Your task to perform on an android device: Search for sushi restaurants on Maps Image 0: 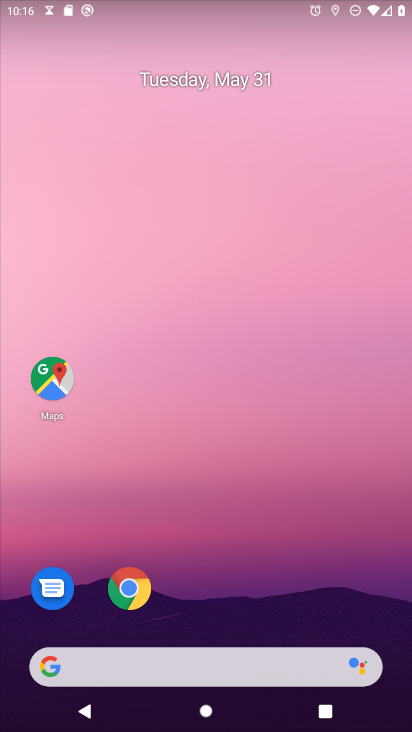
Step 0: click (50, 378)
Your task to perform on an android device: Search for sushi restaurants on Maps Image 1: 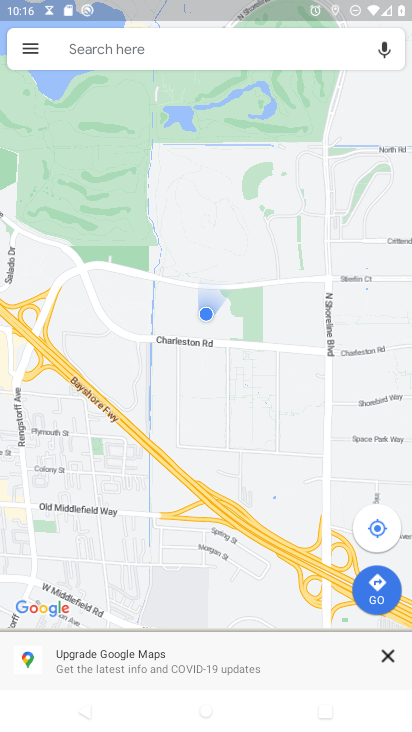
Step 1: click (197, 48)
Your task to perform on an android device: Search for sushi restaurants on Maps Image 2: 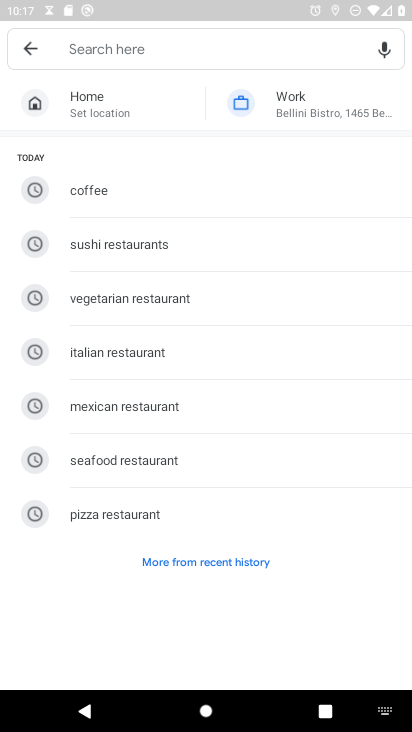
Step 2: type "sushi restaurants"
Your task to perform on an android device: Search for sushi restaurants on Maps Image 3: 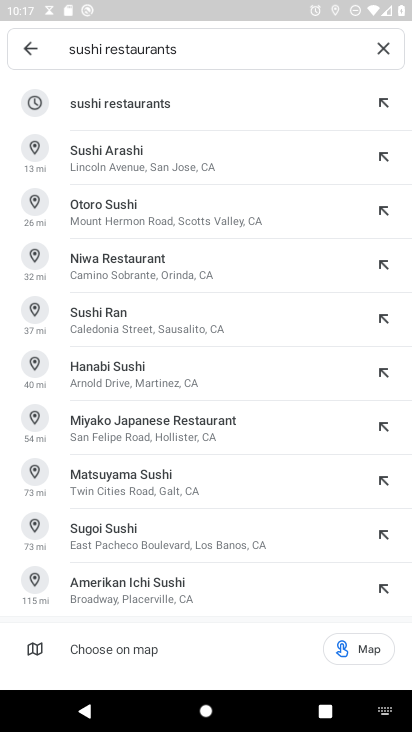
Step 3: click (141, 109)
Your task to perform on an android device: Search for sushi restaurants on Maps Image 4: 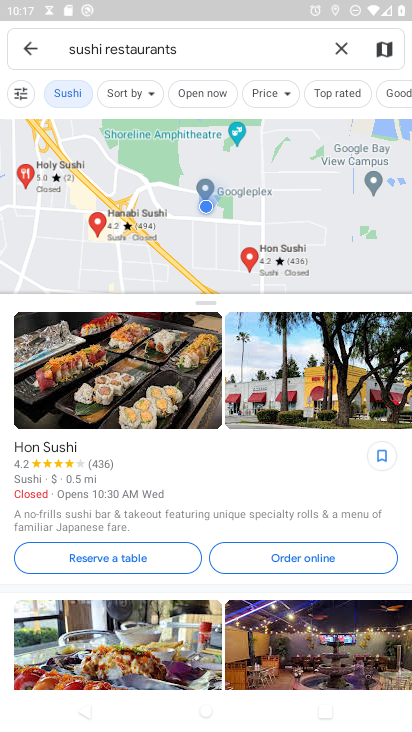
Step 4: task complete